Your task to perform on an android device: open app "Facebook Lite" (install if not already installed) Image 0: 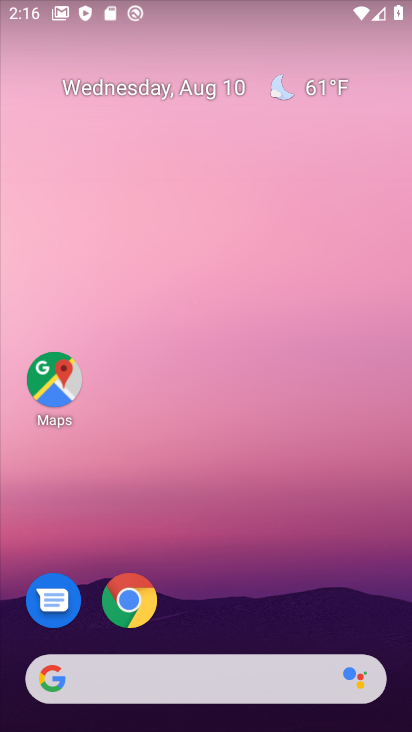
Step 0: drag from (250, 651) to (330, 80)
Your task to perform on an android device: open app "Facebook Lite" (install if not already installed) Image 1: 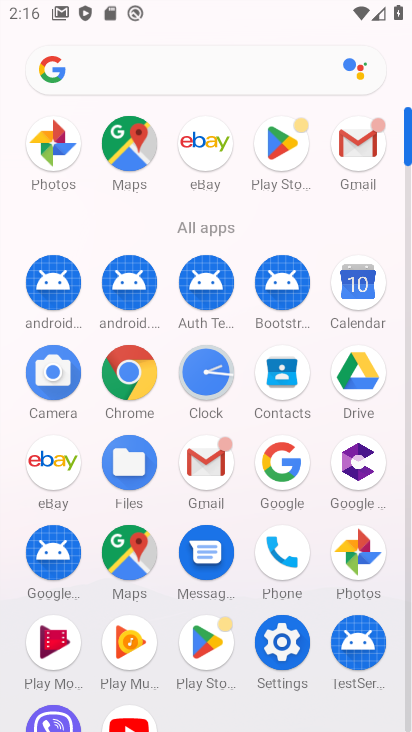
Step 1: click (294, 141)
Your task to perform on an android device: open app "Facebook Lite" (install if not already installed) Image 2: 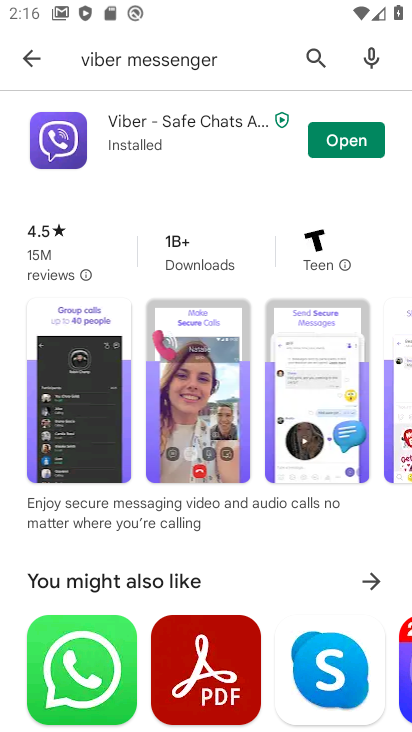
Step 2: click (301, 43)
Your task to perform on an android device: open app "Facebook Lite" (install if not already installed) Image 3: 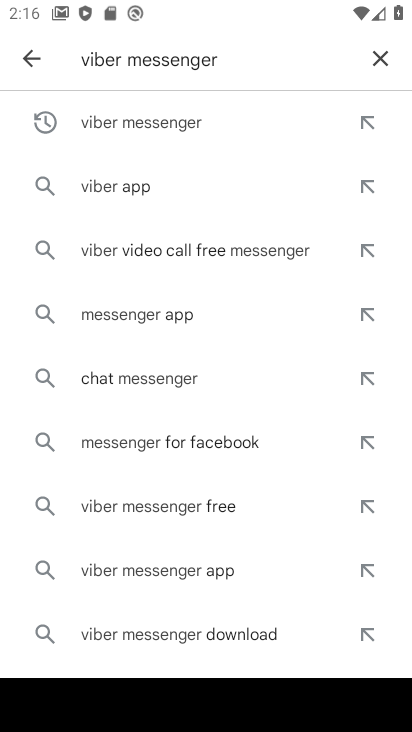
Step 3: click (375, 54)
Your task to perform on an android device: open app "Facebook Lite" (install if not already installed) Image 4: 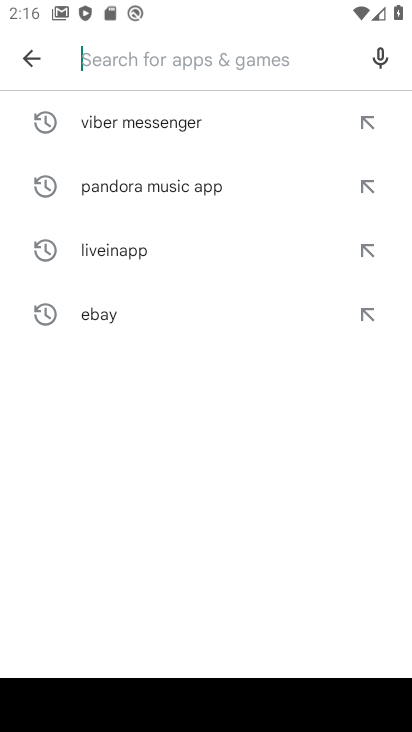
Step 4: click (139, 65)
Your task to perform on an android device: open app "Facebook Lite" (install if not already installed) Image 5: 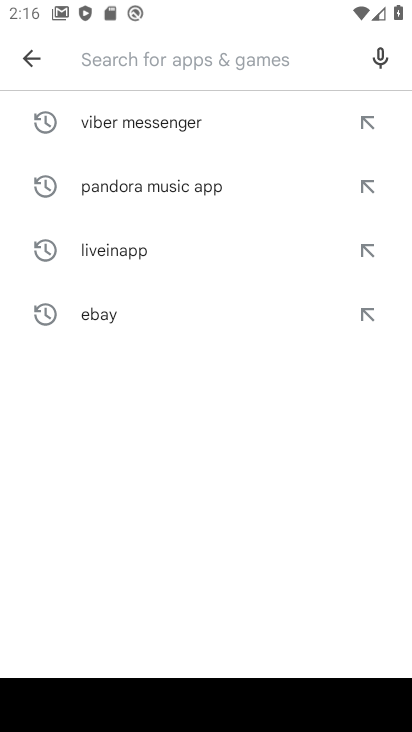
Step 5: type "Facebook Lite"
Your task to perform on an android device: open app "Facebook Lite" (install if not already installed) Image 6: 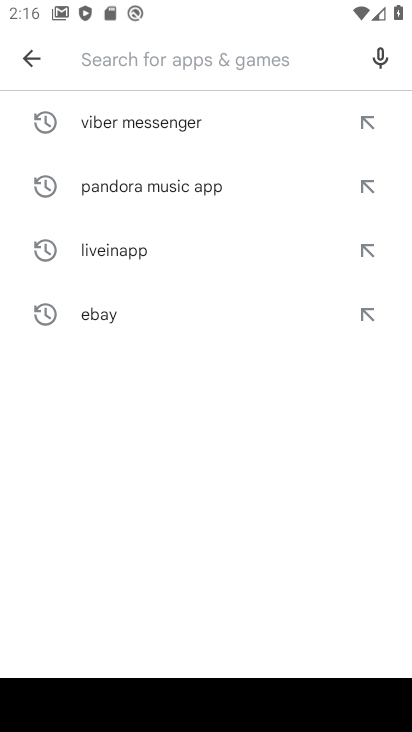
Step 6: click (135, 486)
Your task to perform on an android device: open app "Facebook Lite" (install if not already installed) Image 7: 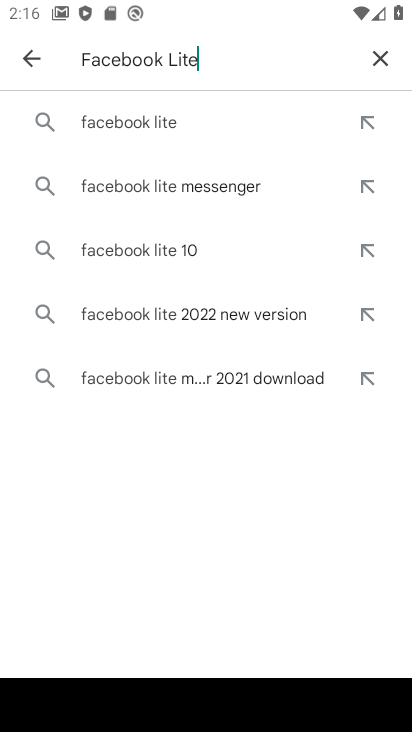
Step 7: click (161, 120)
Your task to perform on an android device: open app "Facebook Lite" (install if not already installed) Image 8: 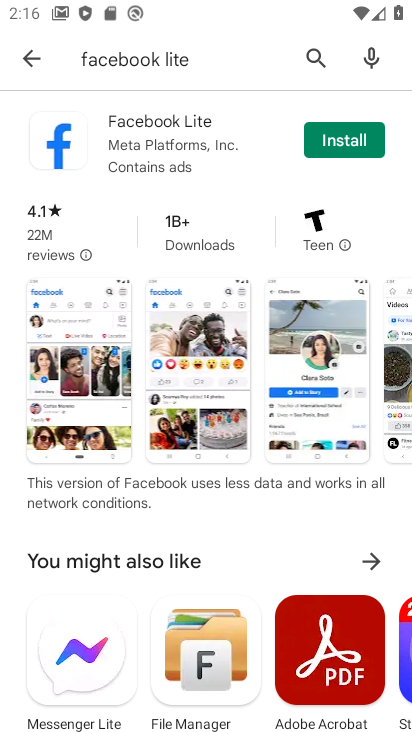
Step 8: click (346, 144)
Your task to perform on an android device: open app "Facebook Lite" (install if not already installed) Image 9: 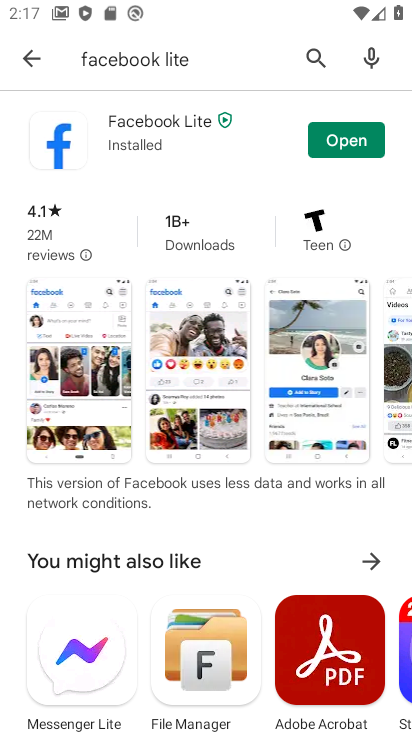
Step 9: click (347, 140)
Your task to perform on an android device: open app "Facebook Lite" (install if not already installed) Image 10: 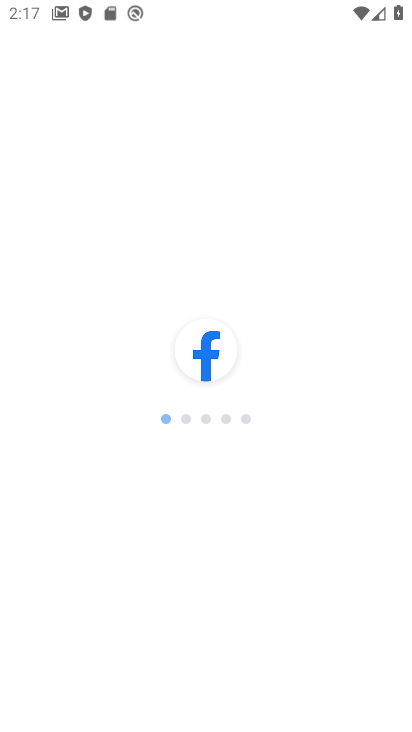
Step 10: task complete